Your task to perform on an android device: Open accessibility settings Image 0: 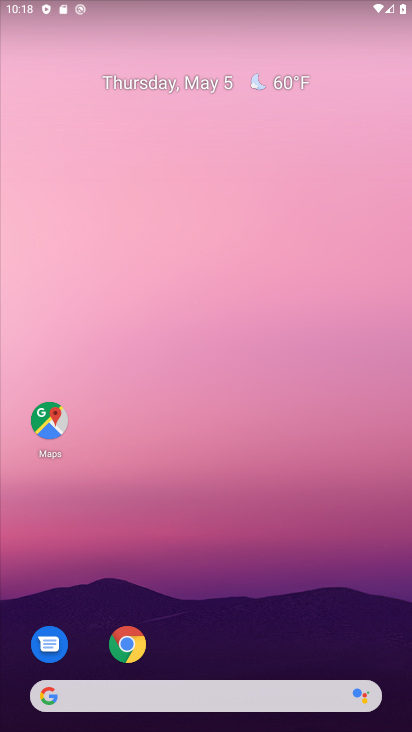
Step 0: drag from (359, 635) to (358, 178)
Your task to perform on an android device: Open accessibility settings Image 1: 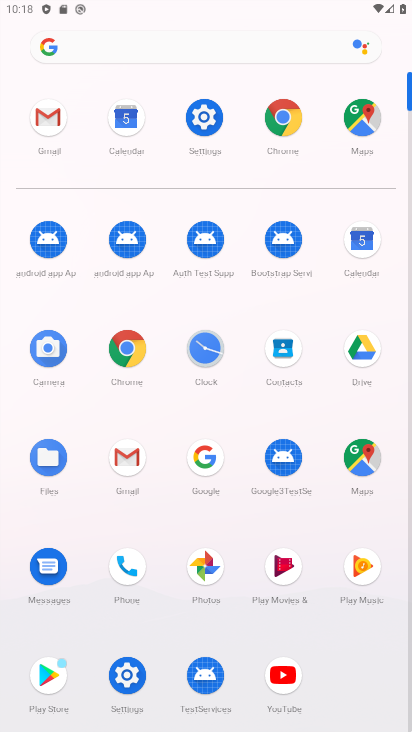
Step 1: click (197, 121)
Your task to perform on an android device: Open accessibility settings Image 2: 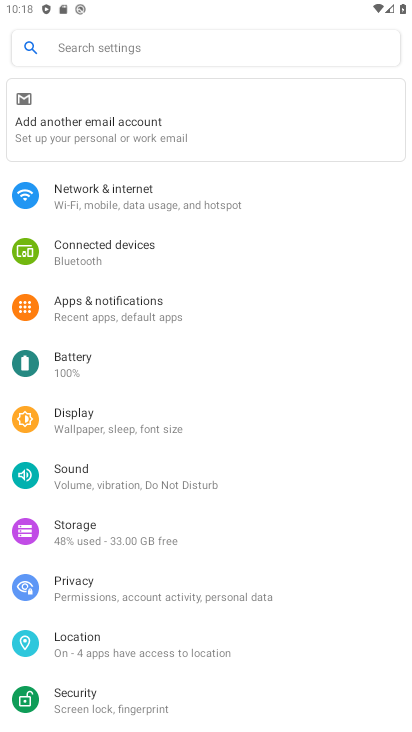
Step 2: drag from (319, 662) to (327, 192)
Your task to perform on an android device: Open accessibility settings Image 3: 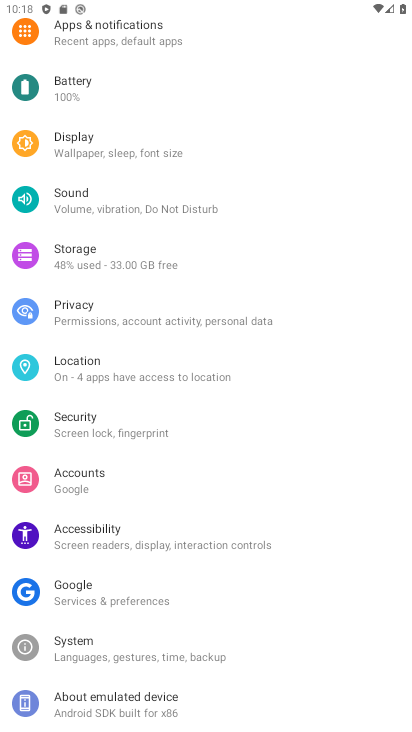
Step 3: click (62, 532)
Your task to perform on an android device: Open accessibility settings Image 4: 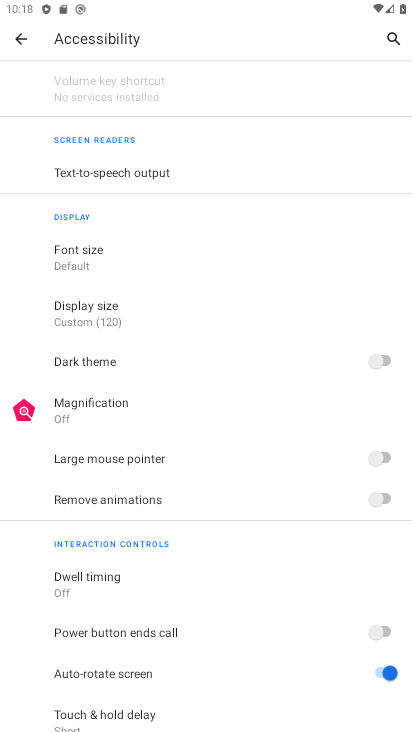
Step 4: task complete